Your task to perform on an android device: Go to network settings Image 0: 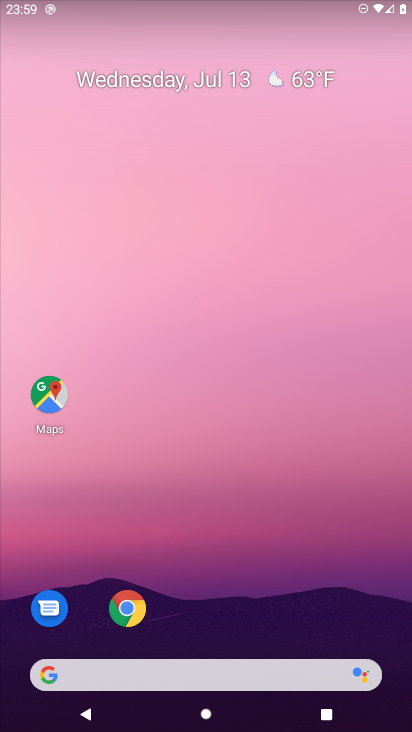
Step 0: press home button
Your task to perform on an android device: Go to network settings Image 1: 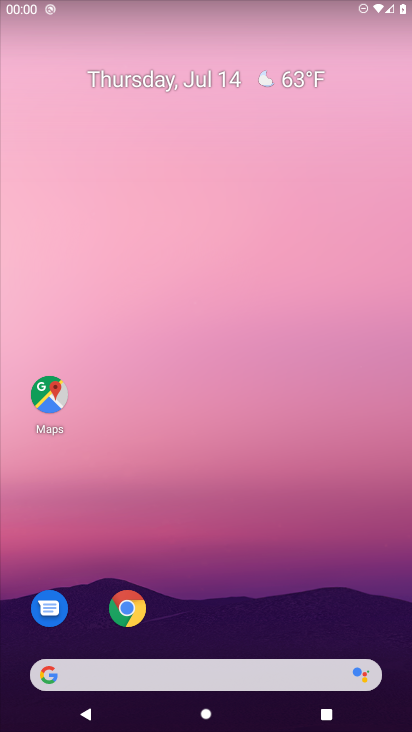
Step 1: drag from (224, 627) to (30, 4)
Your task to perform on an android device: Go to network settings Image 2: 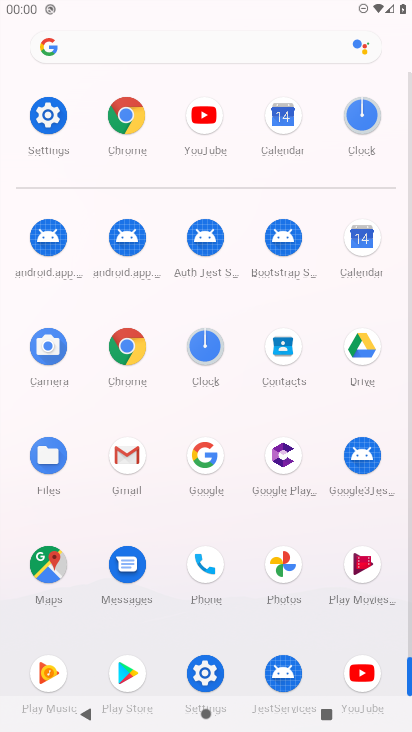
Step 2: click (48, 131)
Your task to perform on an android device: Go to network settings Image 3: 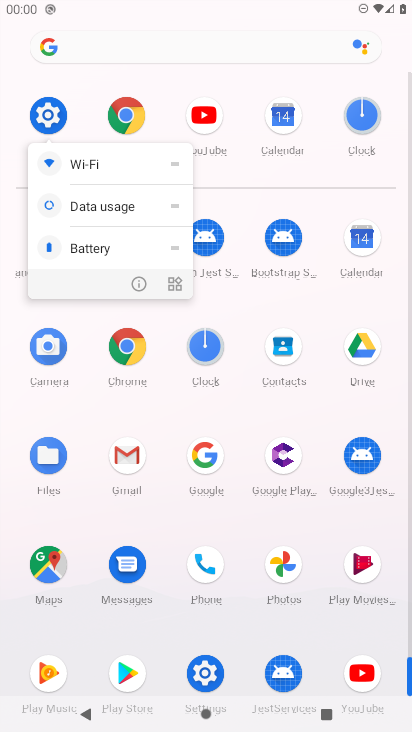
Step 3: click (48, 131)
Your task to perform on an android device: Go to network settings Image 4: 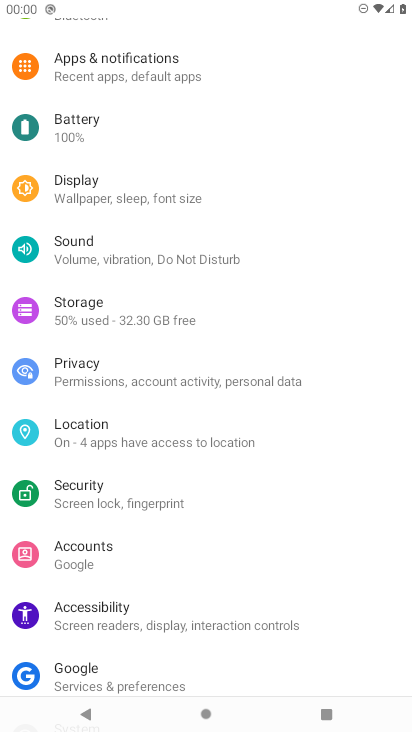
Step 4: drag from (256, 150) to (341, 699)
Your task to perform on an android device: Go to network settings Image 5: 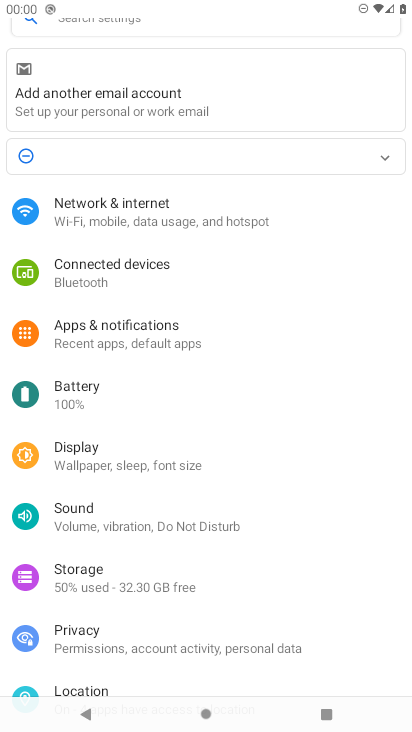
Step 5: click (110, 220)
Your task to perform on an android device: Go to network settings Image 6: 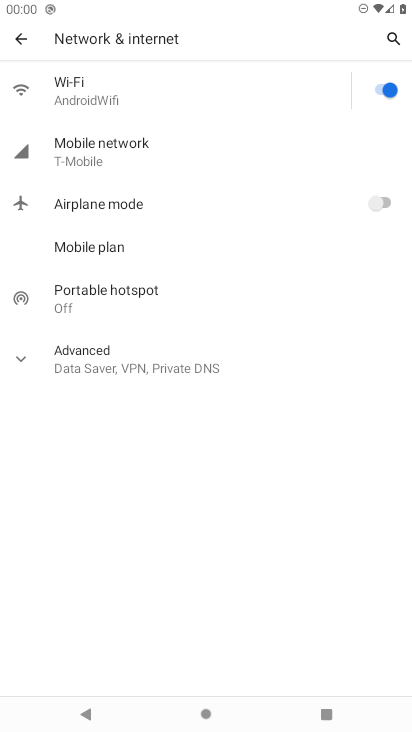
Step 6: task complete